Your task to perform on an android device: move a message to another label in the gmail app Image 0: 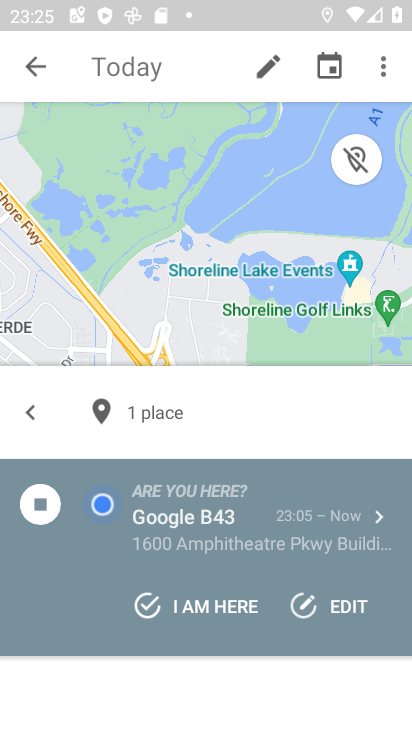
Step 0: press home button
Your task to perform on an android device: move a message to another label in the gmail app Image 1: 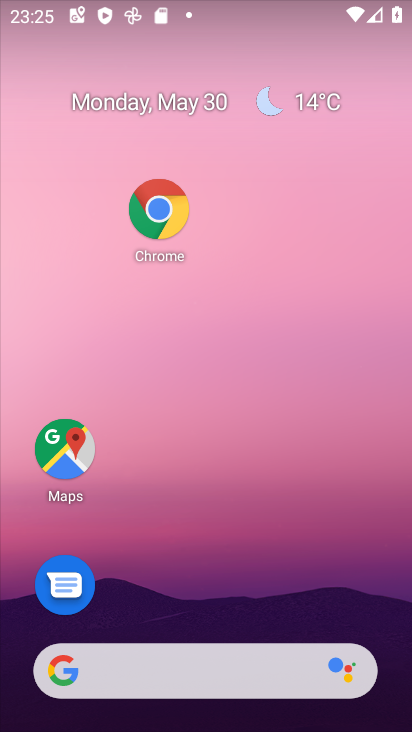
Step 1: drag from (240, 45) to (155, 11)
Your task to perform on an android device: move a message to another label in the gmail app Image 2: 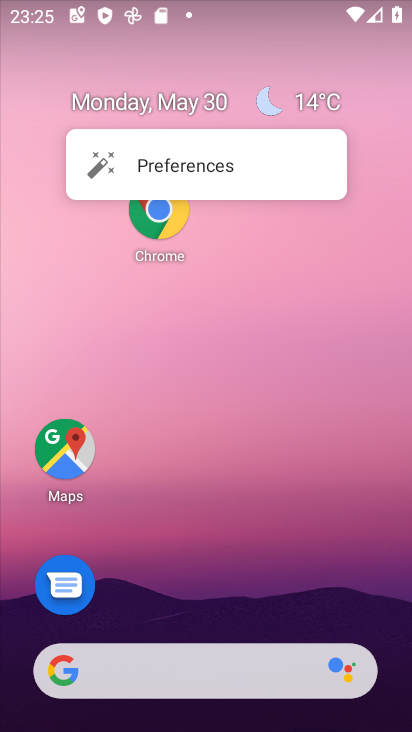
Step 2: drag from (195, 566) to (268, 144)
Your task to perform on an android device: move a message to another label in the gmail app Image 3: 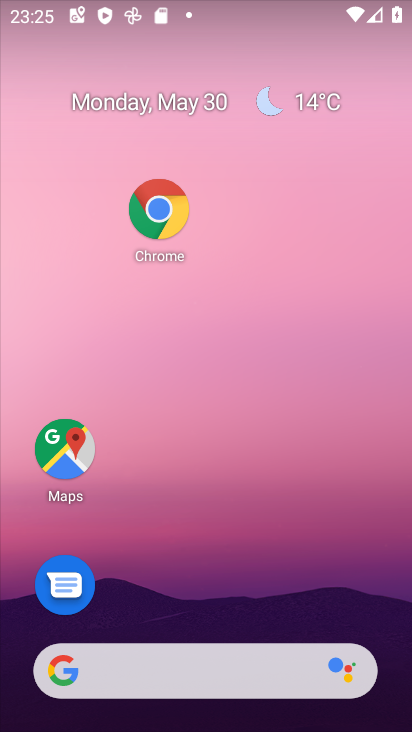
Step 3: drag from (192, 544) to (278, 11)
Your task to perform on an android device: move a message to another label in the gmail app Image 4: 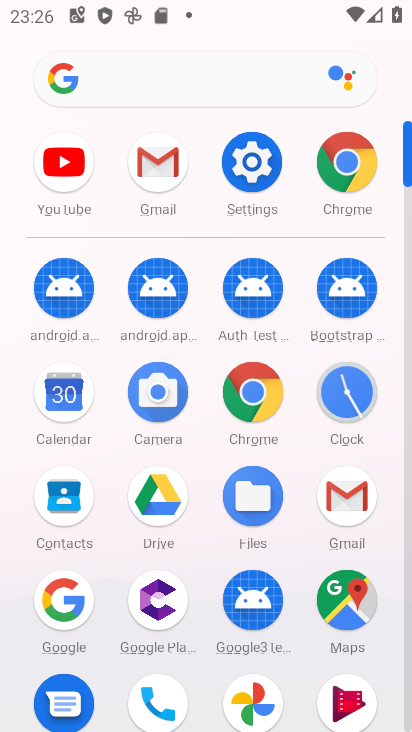
Step 4: drag from (197, 616) to (252, 211)
Your task to perform on an android device: move a message to another label in the gmail app Image 5: 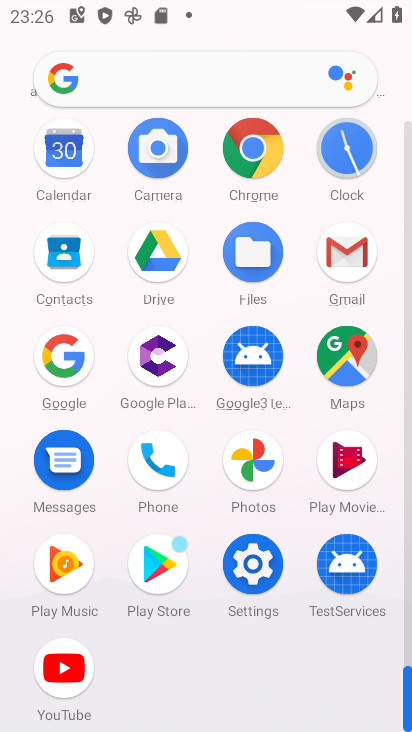
Step 5: click (347, 245)
Your task to perform on an android device: move a message to another label in the gmail app Image 6: 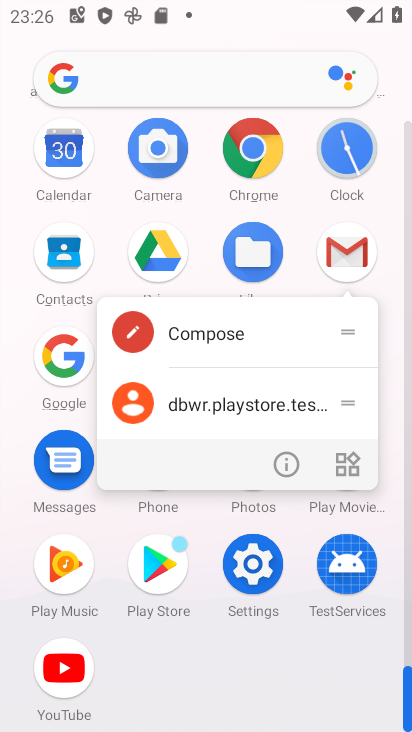
Step 6: click (278, 460)
Your task to perform on an android device: move a message to another label in the gmail app Image 7: 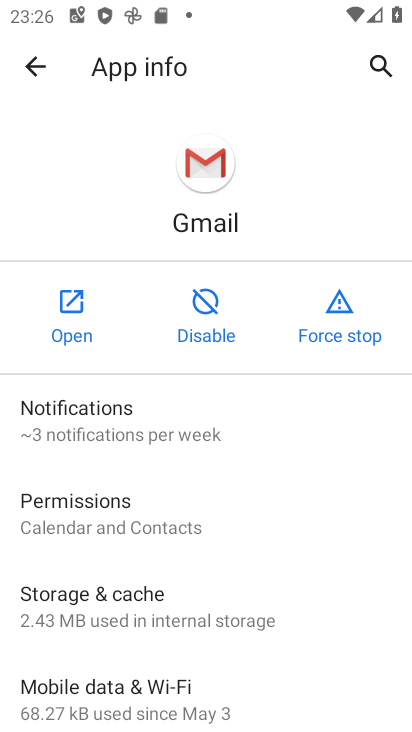
Step 7: click (71, 297)
Your task to perform on an android device: move a message to another label in the gmail app Image 8: 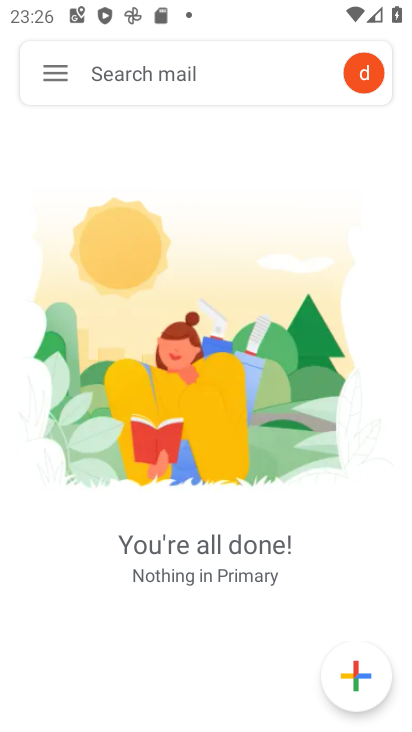
Step 8: click (58, 78)
Your task to perform on an android device: move a message to another label in the gmail app Image 9: 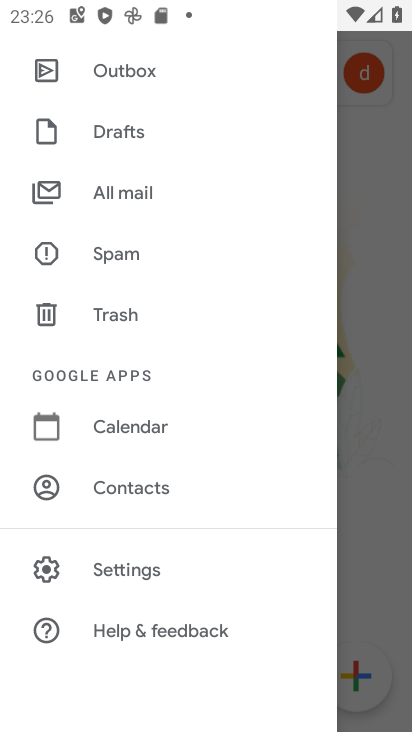
Step 9: task complete